Your task to perform on an android device: Open Google Chrome and open the bookmarks view Image 0: 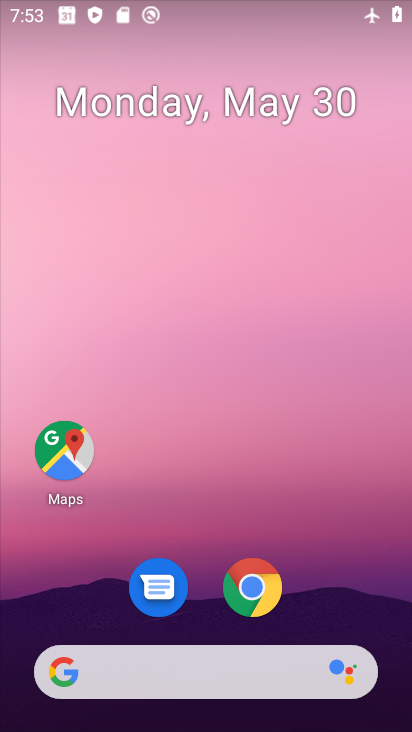
Step 0: drag from (302, 471) to (215, 1)
Your task to perform on an android device: Open Google Chrome and open the bookmarks view Image 1: 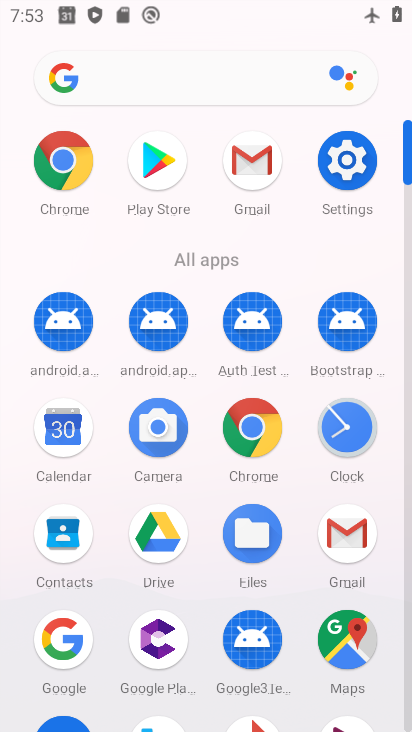
Step 1: drag from (18, 527) to (0, 167)
Your task to perform on an android device: Open Google Chrome and open the bookmarks view Image 2: 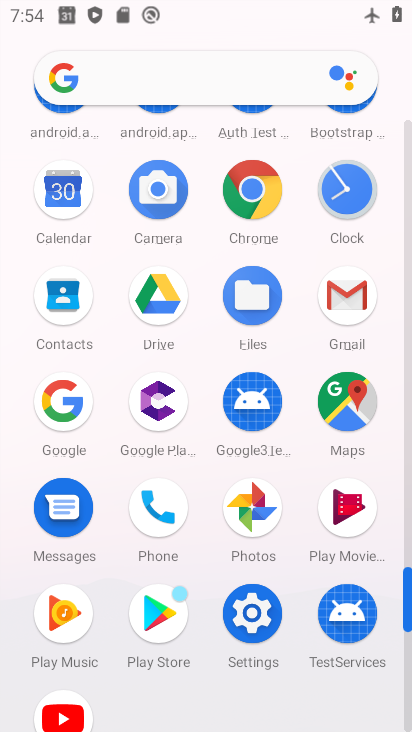
Step 2: click (254, 187)
Your task to perform on an android device: Open Google Chrome and open the bookmarks view Image 3: 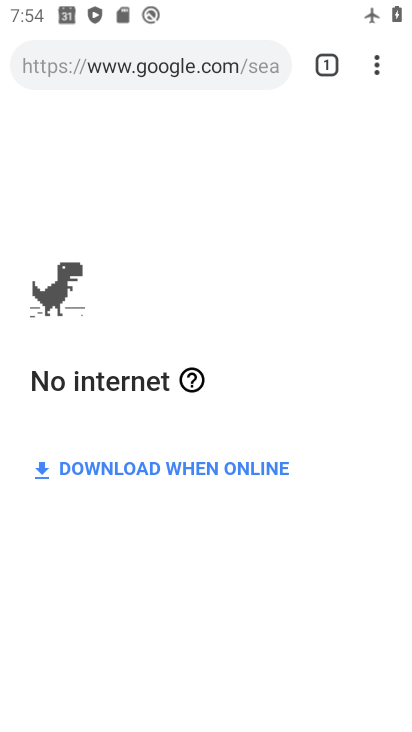
Step 3: task complete